Your task to perform on an android device: see creations saved in the google photos Image 0: 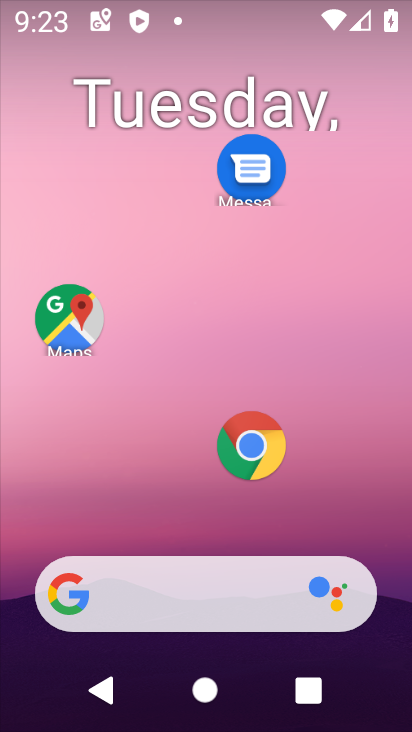
Step 0: drag from (188, 409) to (253, 49)
Your task to perform on an android device: see creations saved in the google photos Image 1: 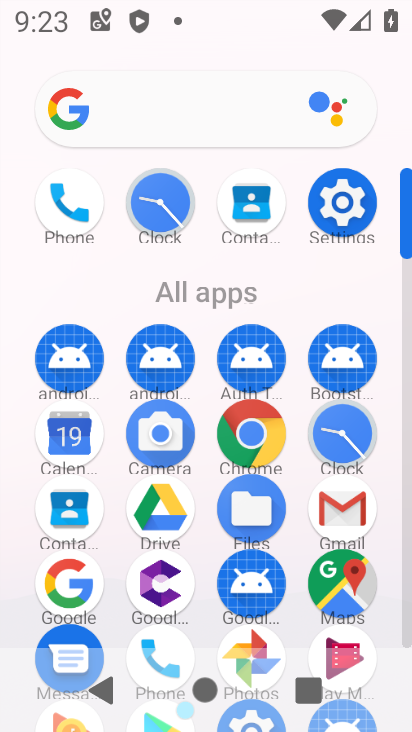
Step 1: drag from (191, 510) to (263, 74)
Your task to perform on an android device: see creations saved in the google photos Image 2: 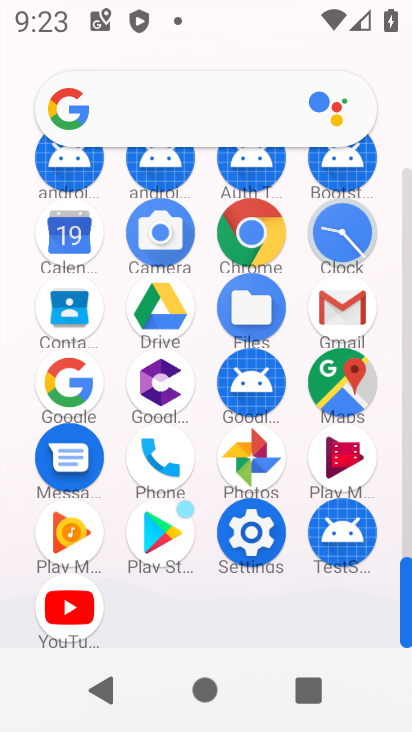
Step 2: click (254, 472)
Your task to perform on an android device: see creations saved in the google photos Image 3: 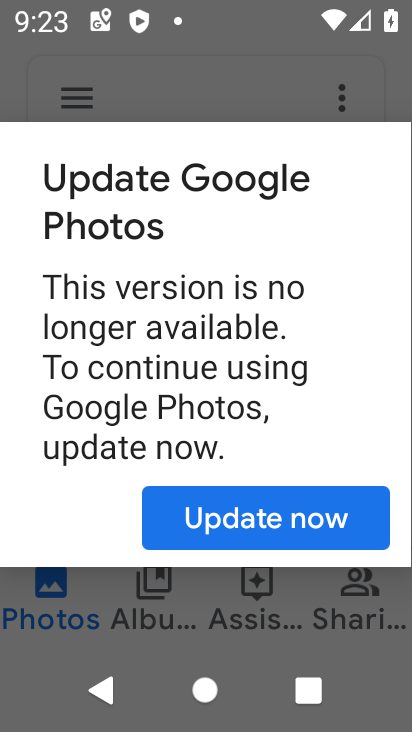
Step 3: click (72, 90)
Your task to perform on an android device: see creations saved in the google photos Image 4: 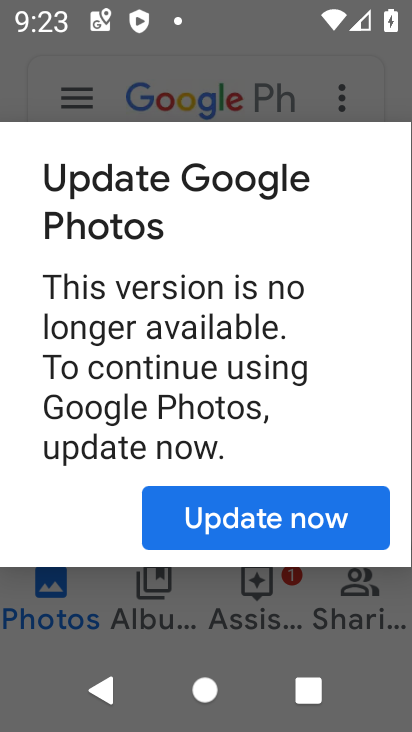
Step 4: click (140, 587)
Your task to perform on an android device: see creations saved in the google photos Image 5: 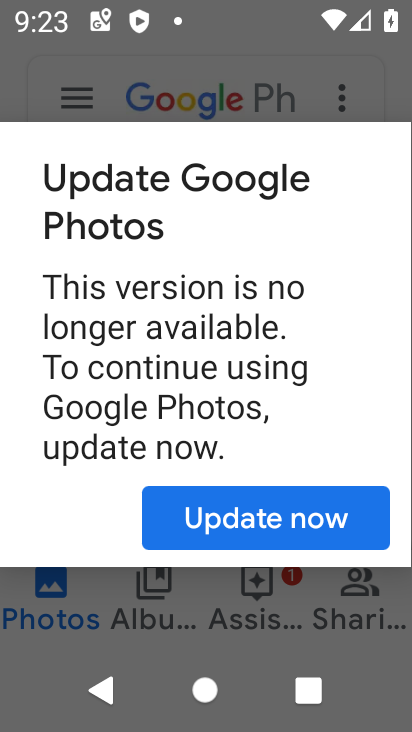
Step 5: click (227, 518)
Your task to perform on an android device: see creations saved in the google photos Image 6: 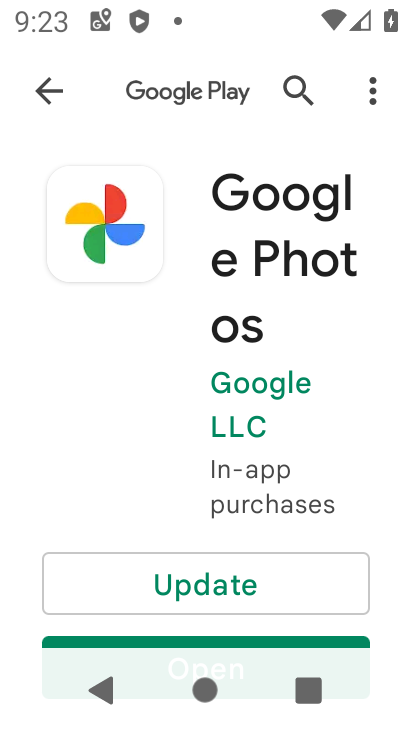
Step 6: click (194, 639)
Your task to perform on an android device: see creations saved in the google photos Image 7: 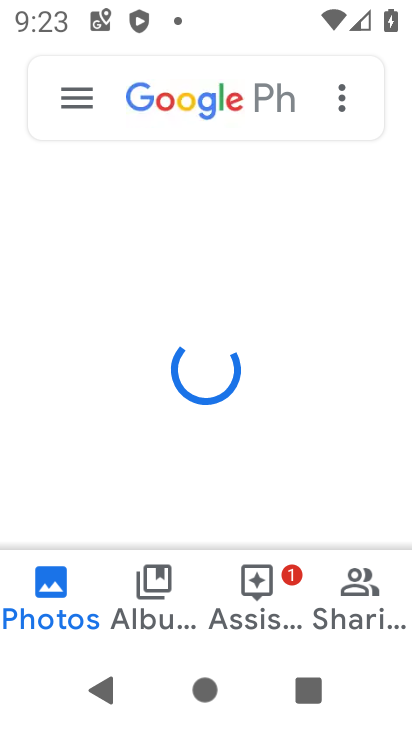
Step 7: click (75, 98)
Your task to perform on an android device: see creations saved in the google photos Image 8: 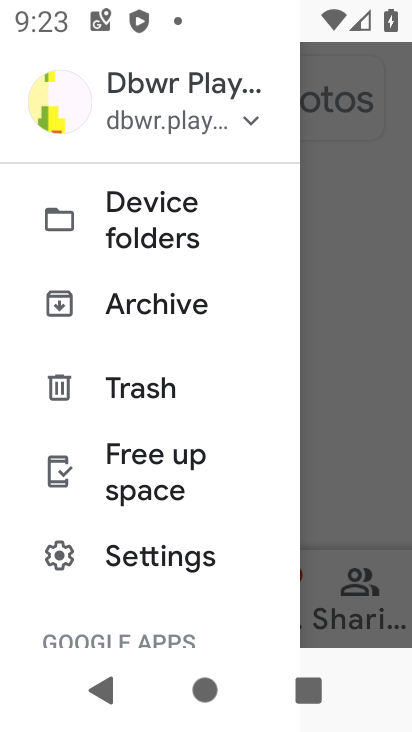
Step 8: click (135, 294)
Your task to perform on an android device: see creations saved in the google photos Image 9: 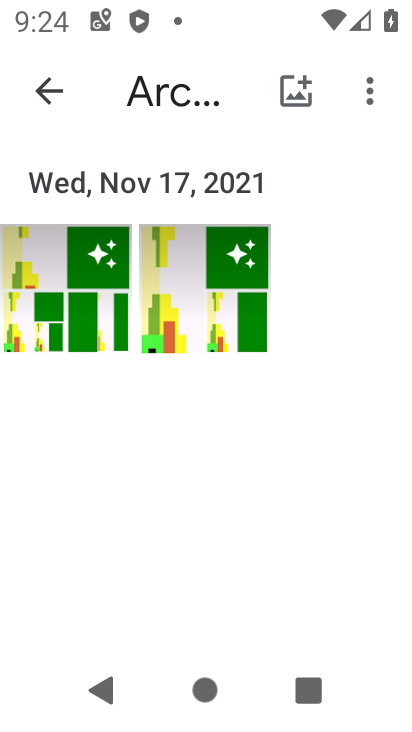
Step 9: task complete